Your task to perform on an android device: turn on javascript in the chrome app Image 0: 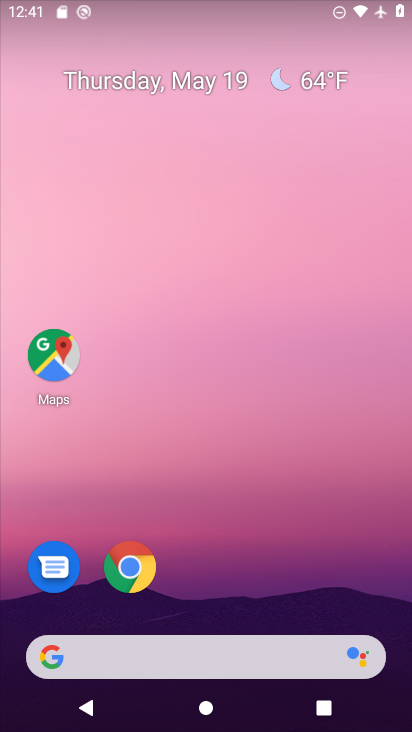
Step 0: click (138, 580)
Your task to perform on an android device: turn on javascript in the chrome app Image 1: 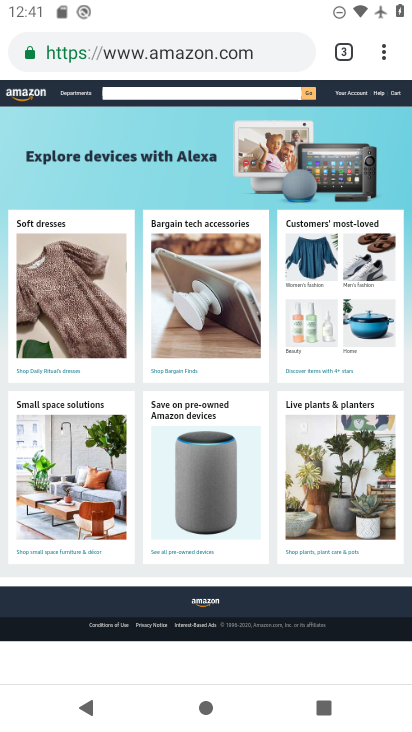
Step 1: drag from (382, 58) to (237, 617)
Your task to perform on an android device: turn on javascript in the chrome app Image 2: 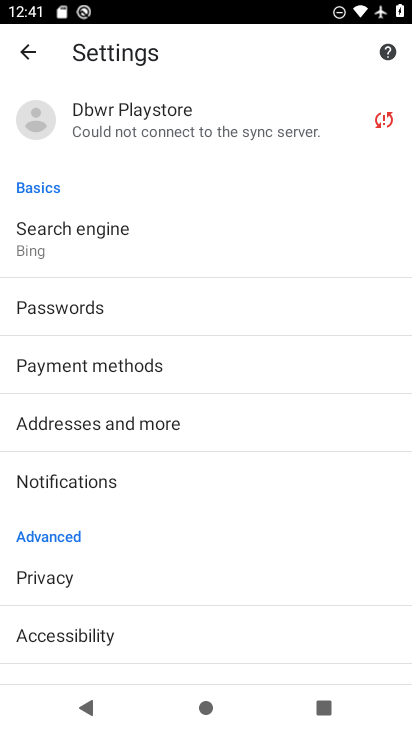
Step 2: drag from (124, 607) to (138, 317)
Your task to perform on an android device: turn on javascript in the chrome app Image 3: 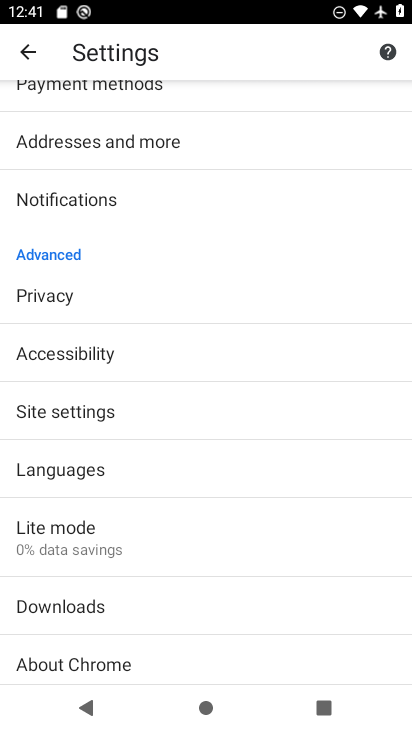
Step 3: click (83, 411)
Your task to perform on an android device: turn on javascript in the chrome app Image 4: 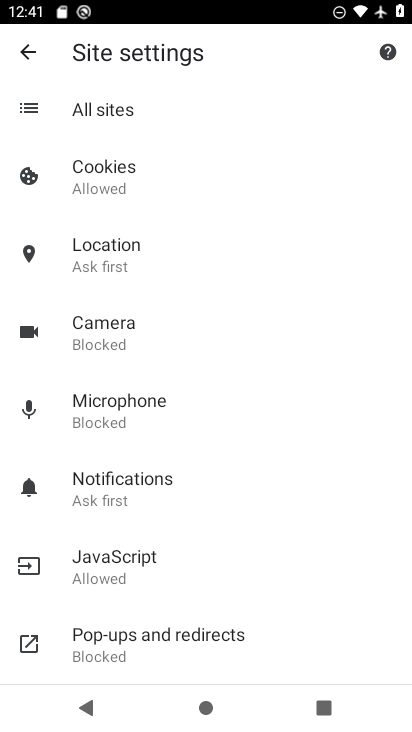
Step 4: click (186, 568)
Your task to perform on an android device: turn on javascript in the chrome app Image 5: 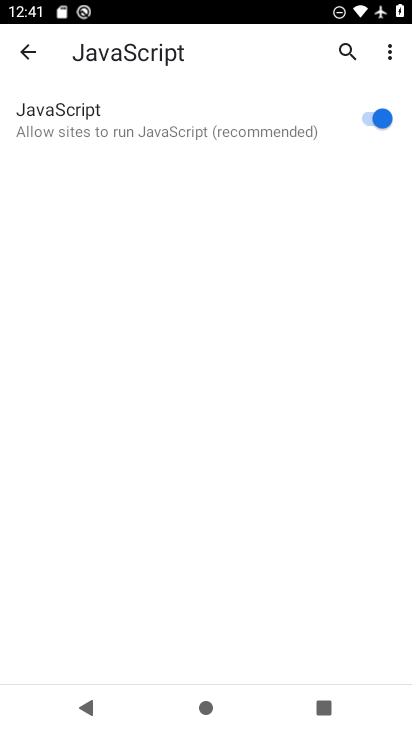
Step 5: task complete